Your task to perform on an android device: Open the calendar and show me this week's events Image 0: 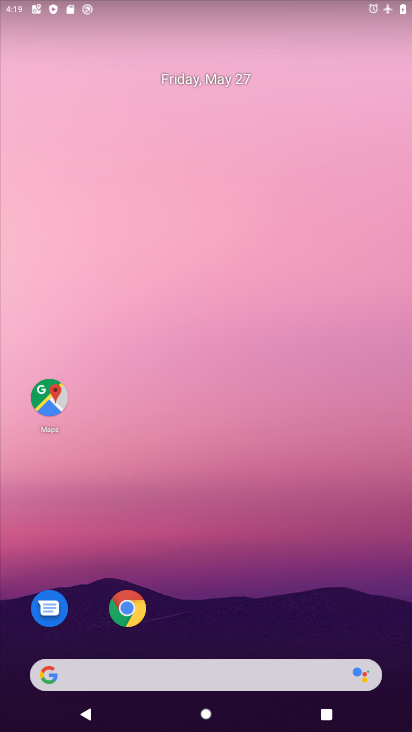
Step 0: drag from (186, 541) to (186, 269)
Your task to perform on an android device: Open the calendar and show me this week's events Image 1: 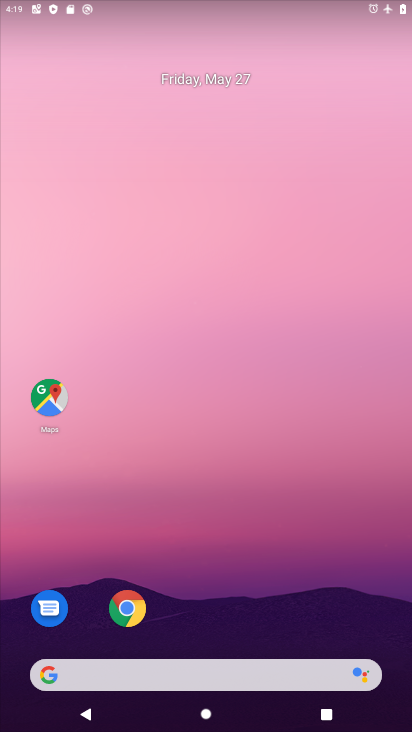
Step 1: drag from (176, 651) to (176, 97)
Your task to perform on an android device: Open the calendar and show me this week's events Image 2: 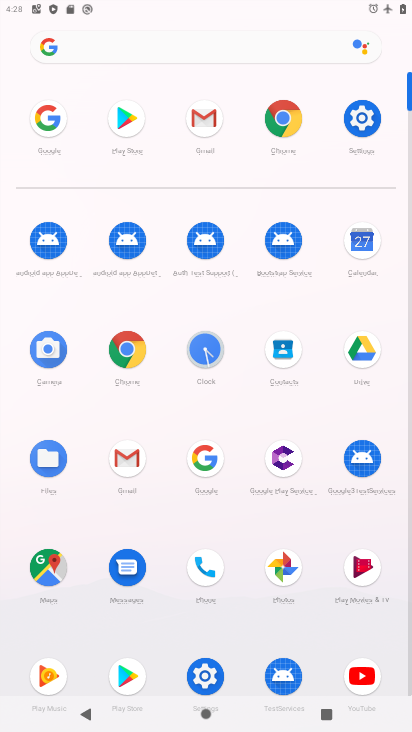
Step 2: click (369, 232)
Your task to perform on an android device: Open the calendar and show me this week's events Image 3: 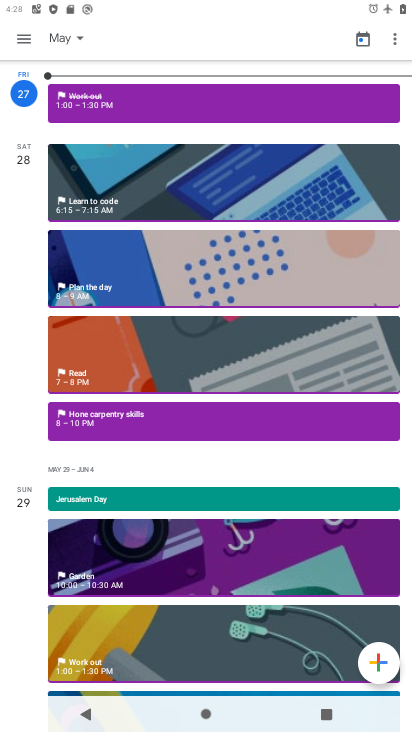
Step 3: click (76, 30)
Your task to perform on an android device: Open the calendar and show me this week's events Image 4: 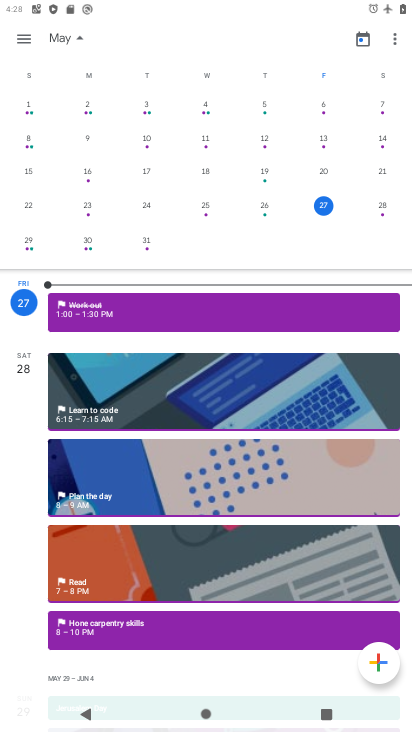
Step 4: click (36, 237)
Your task to perform on an android device: Open the calendar and show me this week's events Image 5: 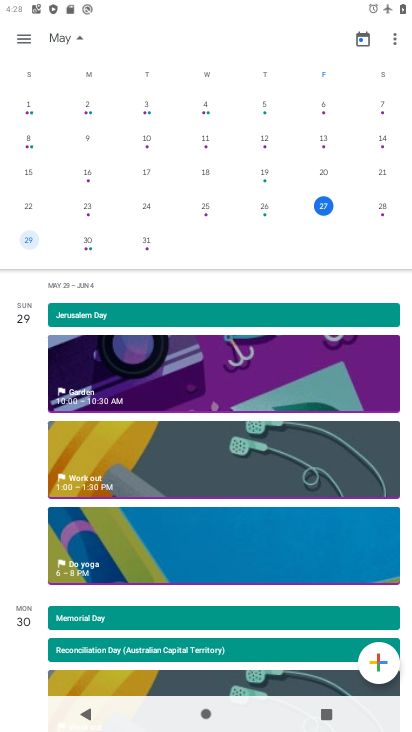
Step 5: click (382, 207)
Your task to perform on an android device: Open the calendar and show me this week's events Image 6: 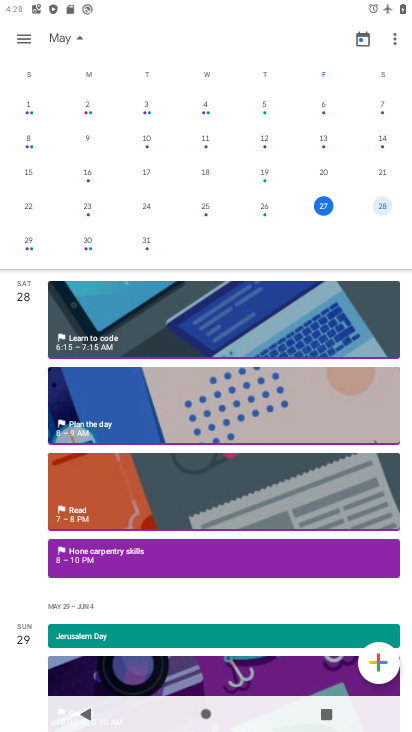
Step 6: task complete